Your task to perform on an android device: Find coffee shops on Maps Image 0: 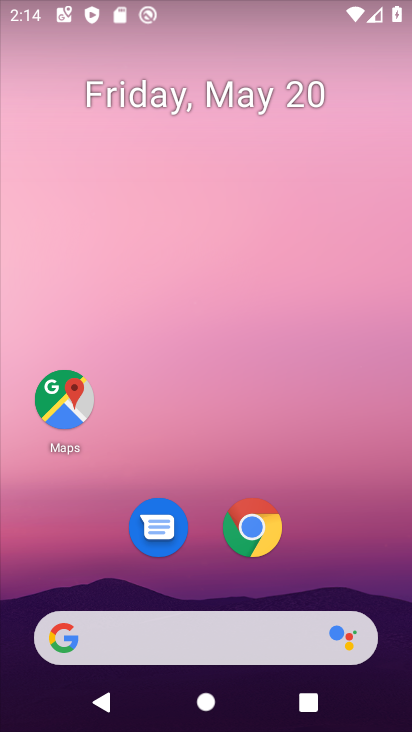
Step 0: click (59, 402)
Your task to perform on an android device: Find coffee shops on Maps Image 1: 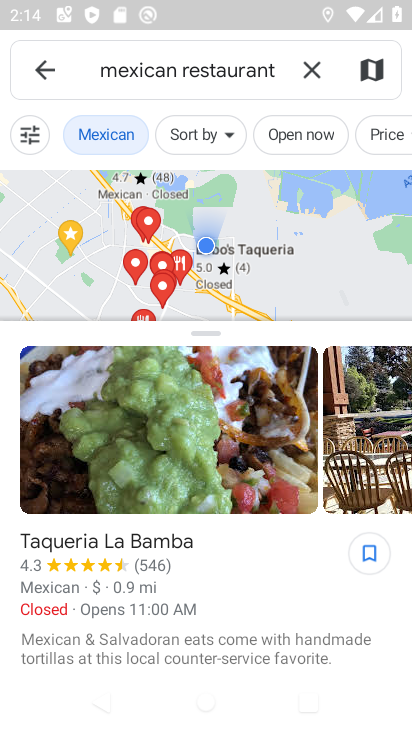
Step 1: click (314, 69)
Your task to perform on an android device: Find coffee shops on Maps Image 2: 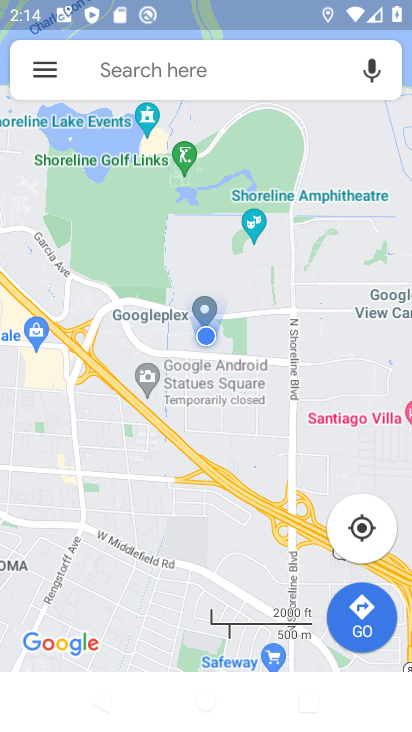
Step 2: click (227, 72)
Your task to perform on an android device: Find coffee shops on Maps Image 3: 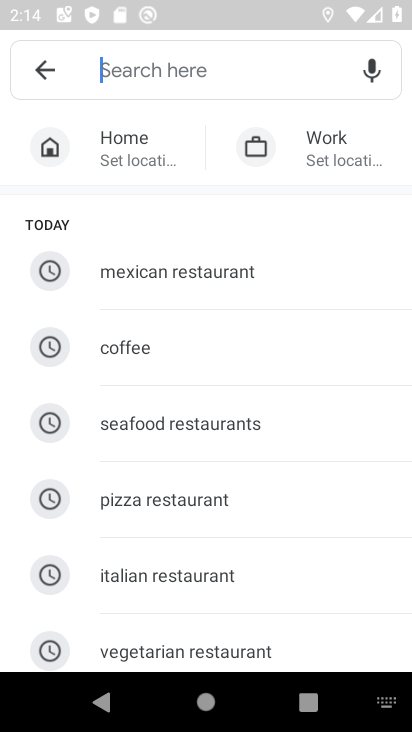
Step 3: click (133, 347)
Your task to perform on an android device: Find coffee shops on Maps Image 4: 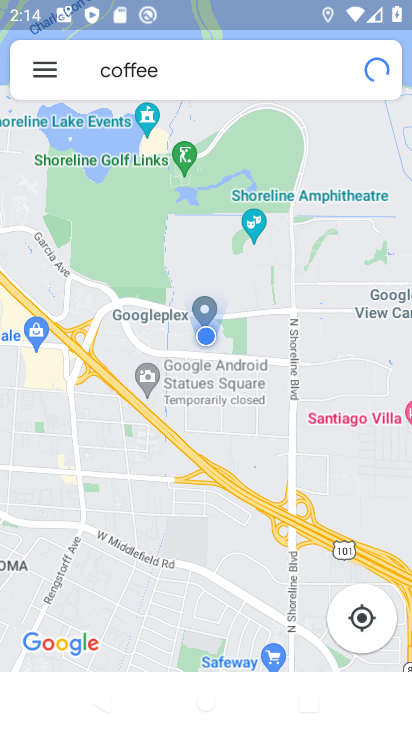
Step 4: task complete